Your task to perform on an android device: find which apps use the phone's location Image 0: 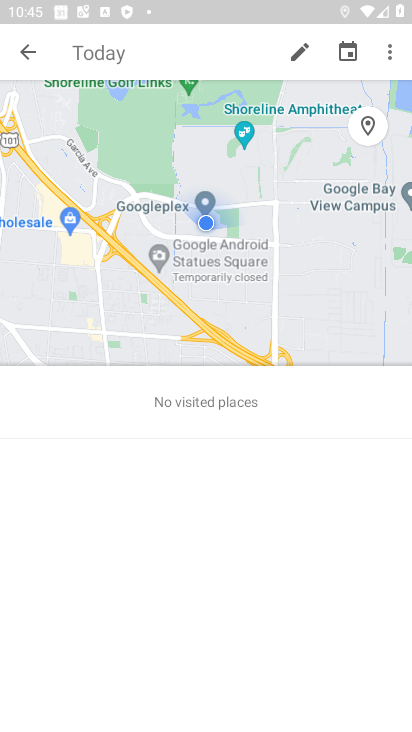
Step 0: press home button
Your task to perform on an android device: find which apps use the phone's location Image 1: 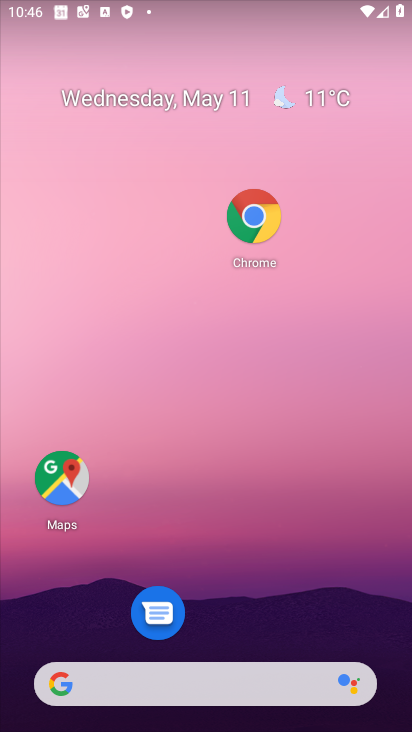
Step 1: drag from (184, 538) to (224, 167)
Your task to perform on an android device: find which apps use the phone's location Image 2: 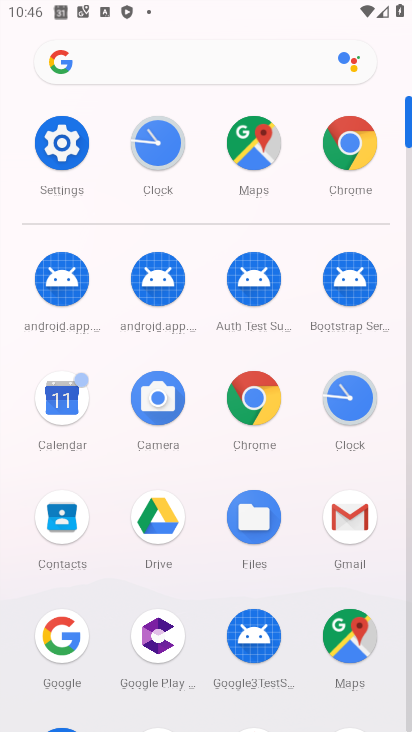
Step 2: click (61, 153)
Your task to perform on an android device: find which apps use the phone's location Image 3: 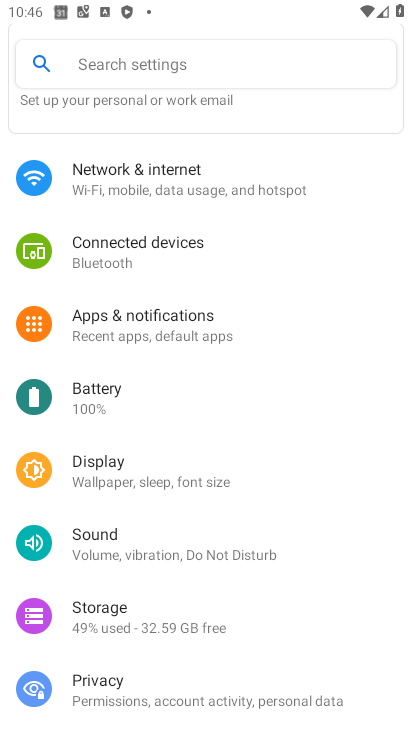
Step 3: drag from (172, 625) to (190, 282)
Your task to perform on an android device: find which apps use the phone's location Image 4: 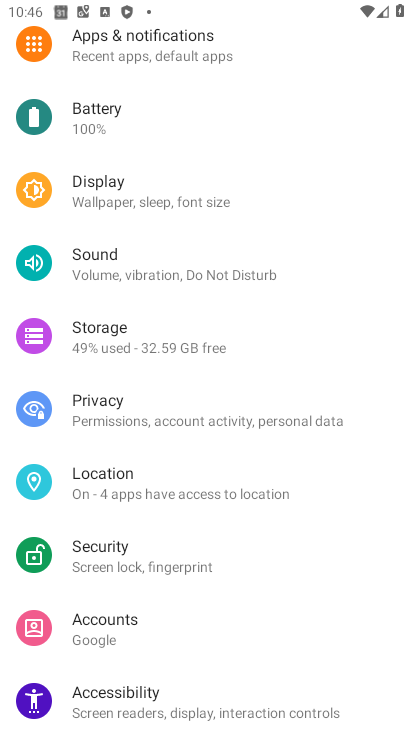
Step 4: click (136, 498)
Your task to perform on an android device: find which apps use the phone's location Image 5: 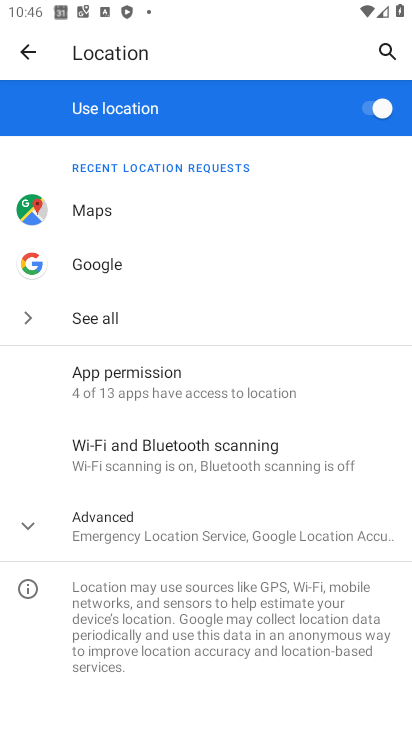
Step 5: task complete